Your task to perform on an android device: What's the weather? Image 0: 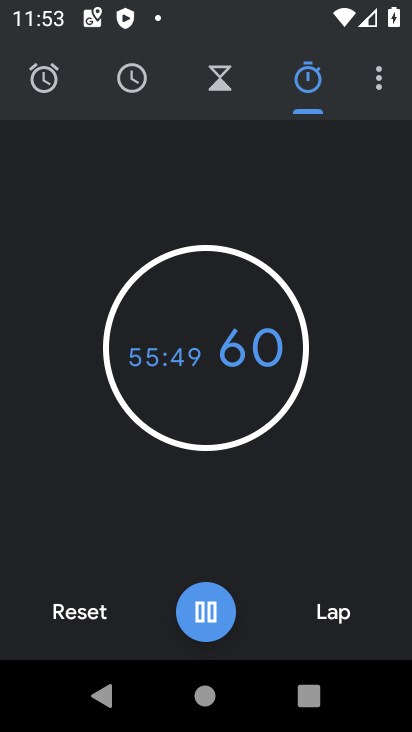
Step 0: press home button
Your task to perform on an android device: What's the weather? Image 1: 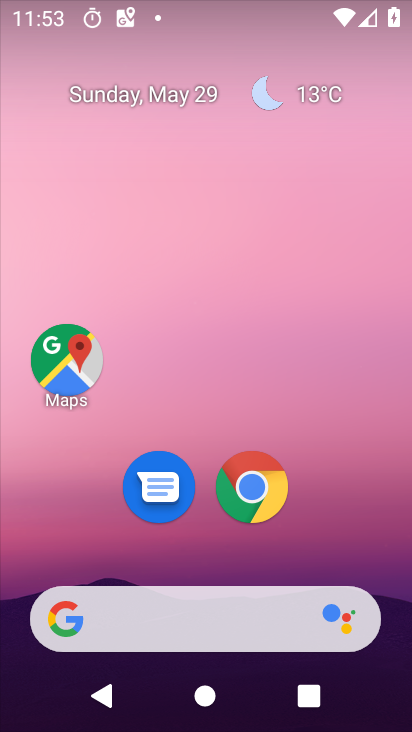
Step 1: click (320, 95)
Your task to perform on an android device: What's the weather? Image 2: 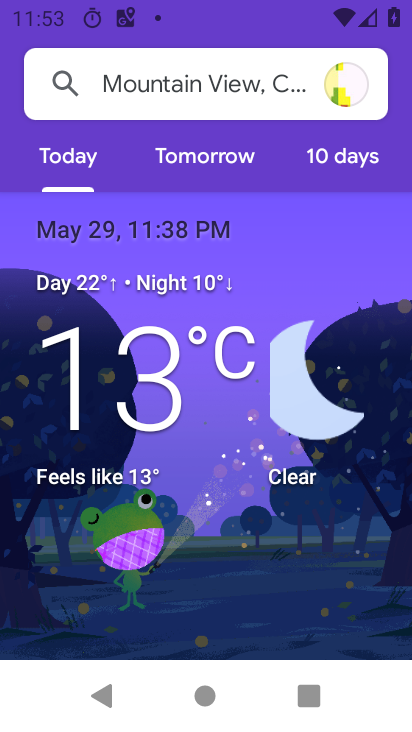
Step 2: click (43, 160)
Your task to perform on an android device: What's the weather? Image 3: 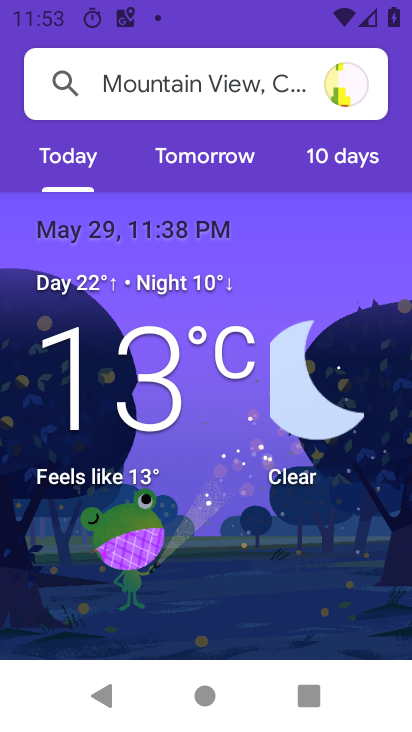
Step 3: click (81, 155)
Your task to perform on an android device: What's the weather? Image 4: 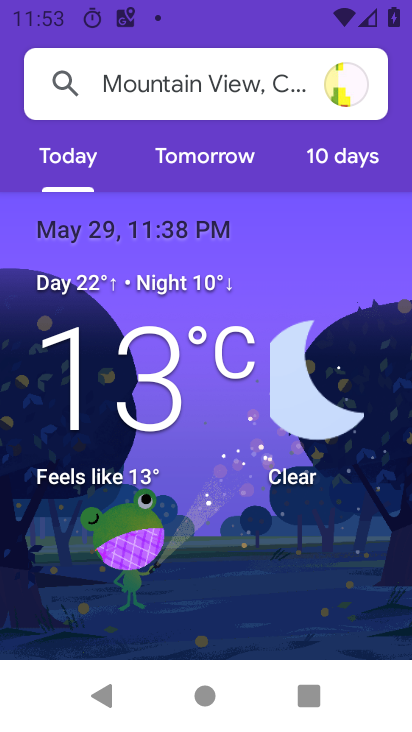
Step 4: task complete